Your task to perform on an android device: change alarm snooze length Image 0: 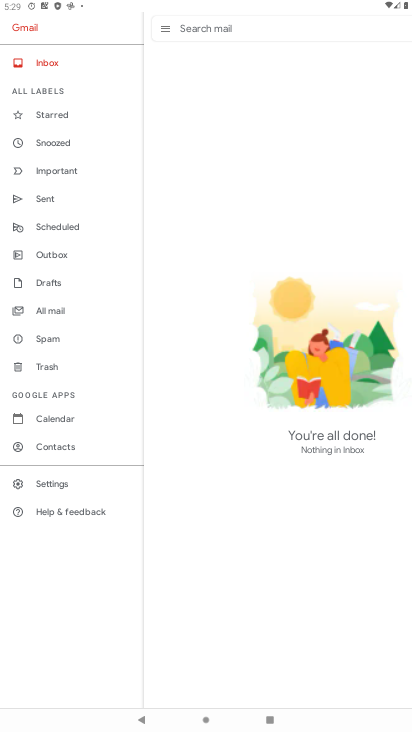
Step 0: press home button
Your task to perform on an android device: change alarm snooze length Image 1: 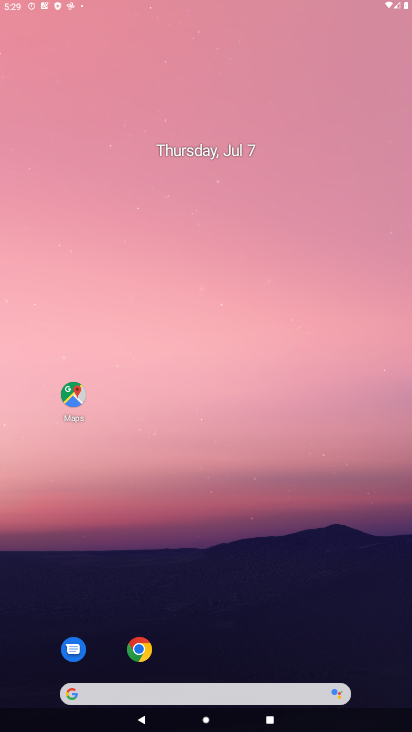
Step 1: drag from (370, 652) to (248, 29)
Your task to perform on an android device: change alarm snooze length Image 2: 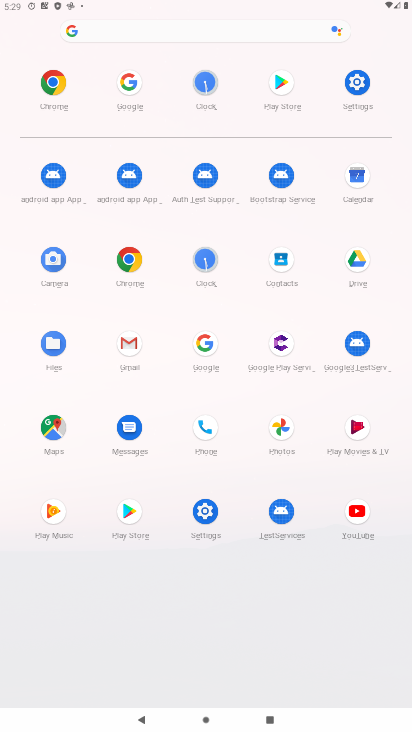
Step 2: click (199, 259)
Your task to perform on an android device: change alarm snooze length Image 3: 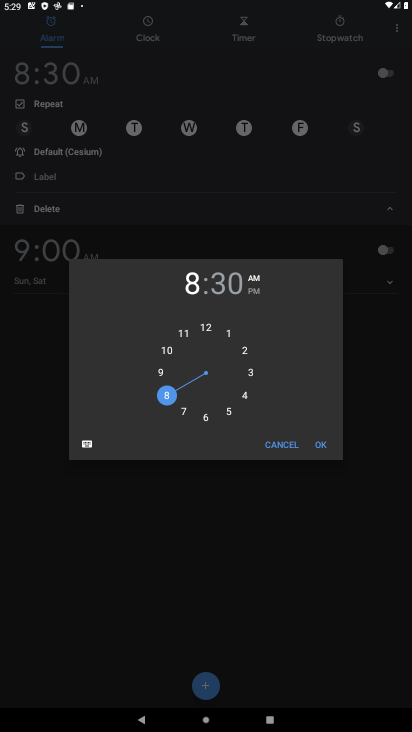
Step 3: press back button
Your task to perform on an android device: change alarm snooze length Image 4: 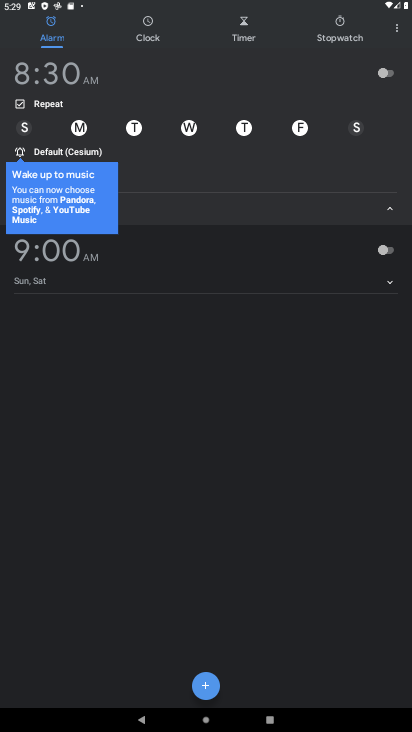
Step 4: click (392, 23)
Your task to perform on an android device: change alarm snooze length Image 5: 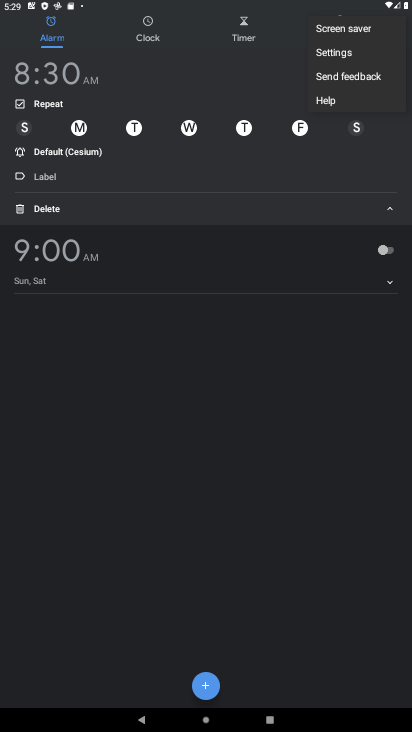
Step 5: click (351, 57)
Your task to perform on an android device: change alarm snooze length Image 6: 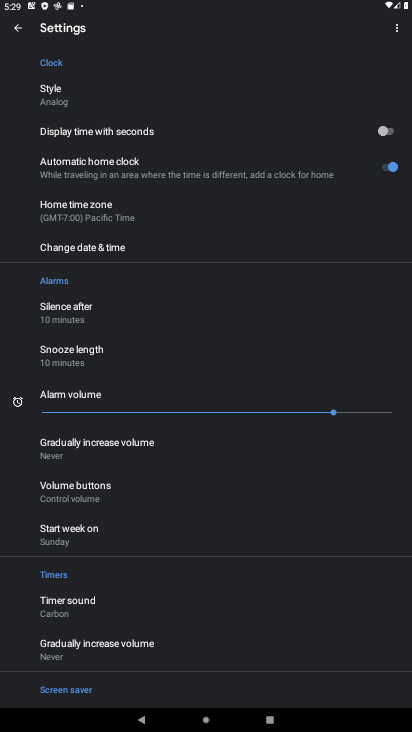
Step 6: drag from (108, 615) to (57, 253)
Your task to perform on an android device: change alarm snooze length Image 7: 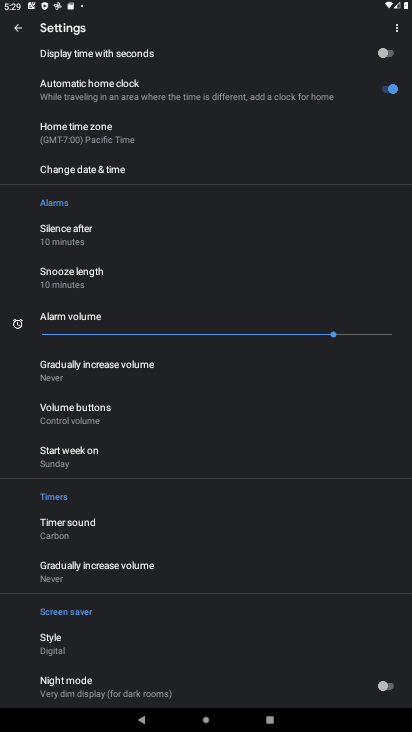
Step 7: click (83, 270)
Your task to perform on an android device: change alarm snooze length Image 8: 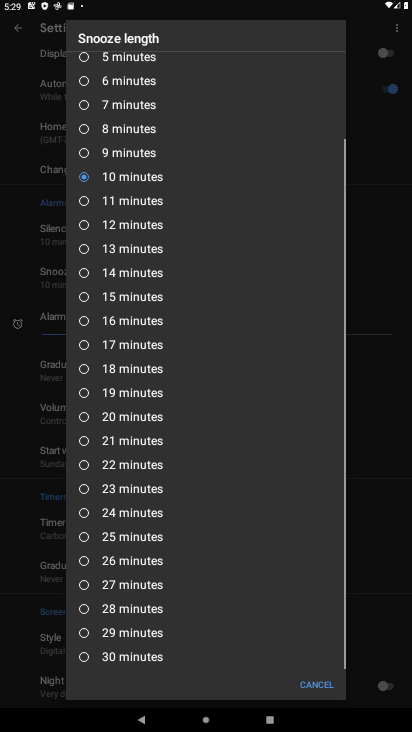
Step 8: click (101, 273)
Your task to perform on an android device: change alarm snooze length Image 9: 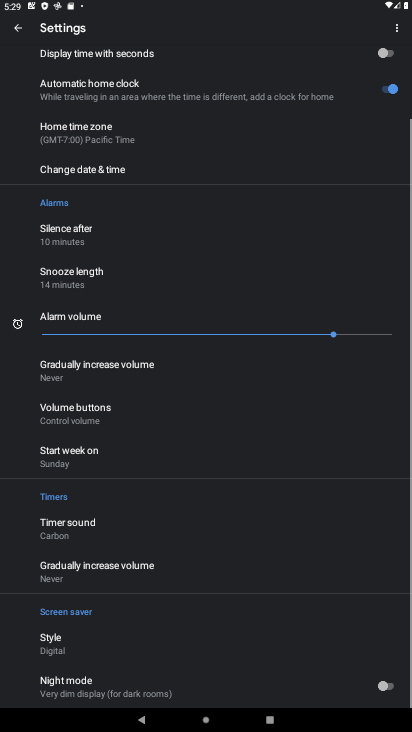
Step 9: task complete